Your task to perform on an android device: open chrome privacy settings Image 0: 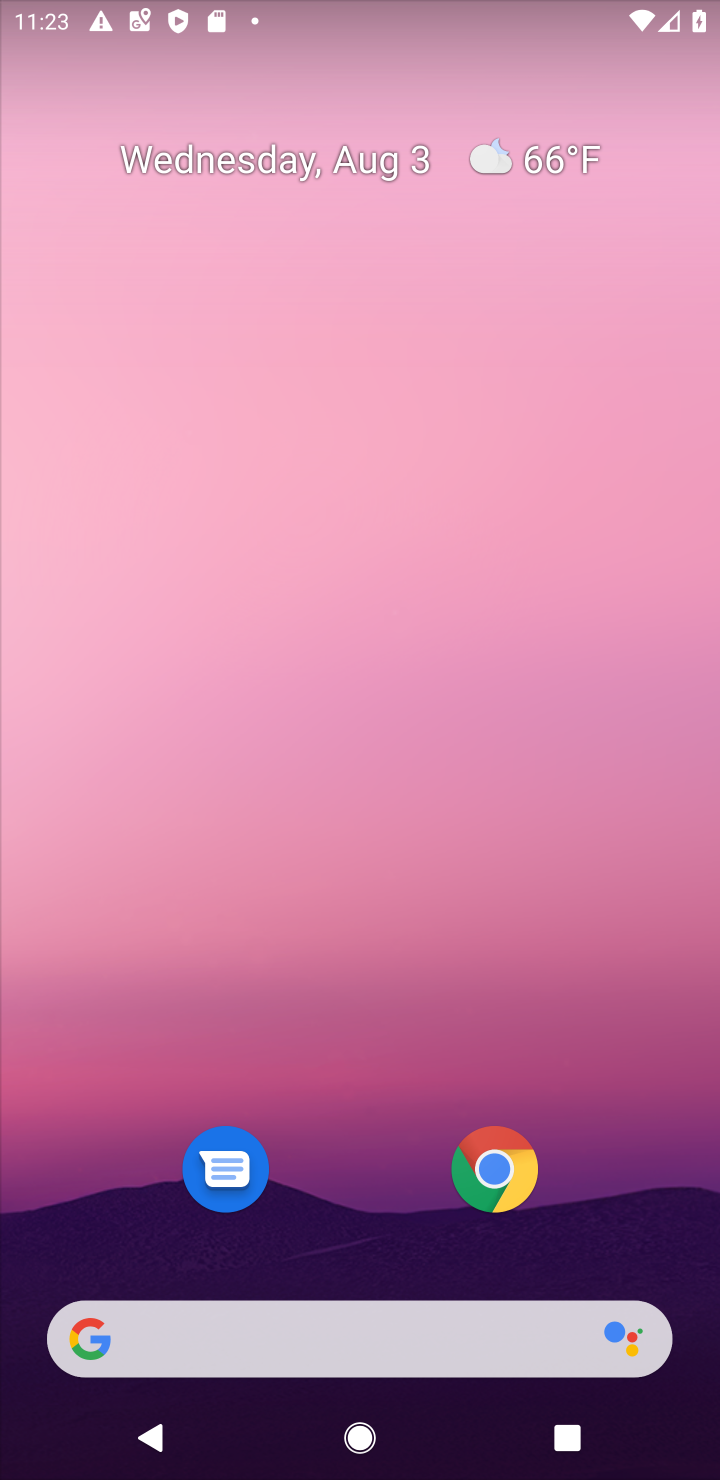
Step 0: click (501, 1171)
Your task to perform on an android device: open chrome privacy settings Image 1: 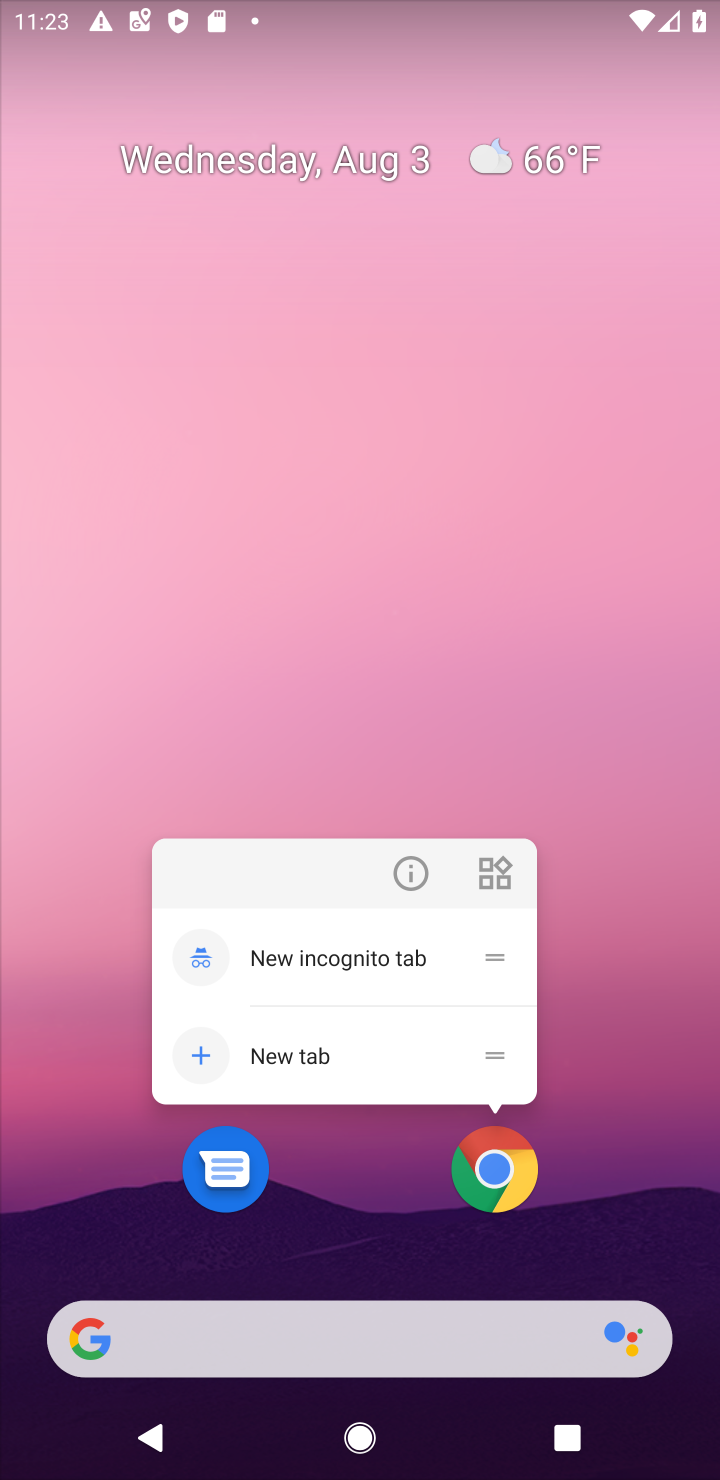
Step 1: click (501, 1171)
Your task to perform on an android device: open chrome privacy settings Image 2: 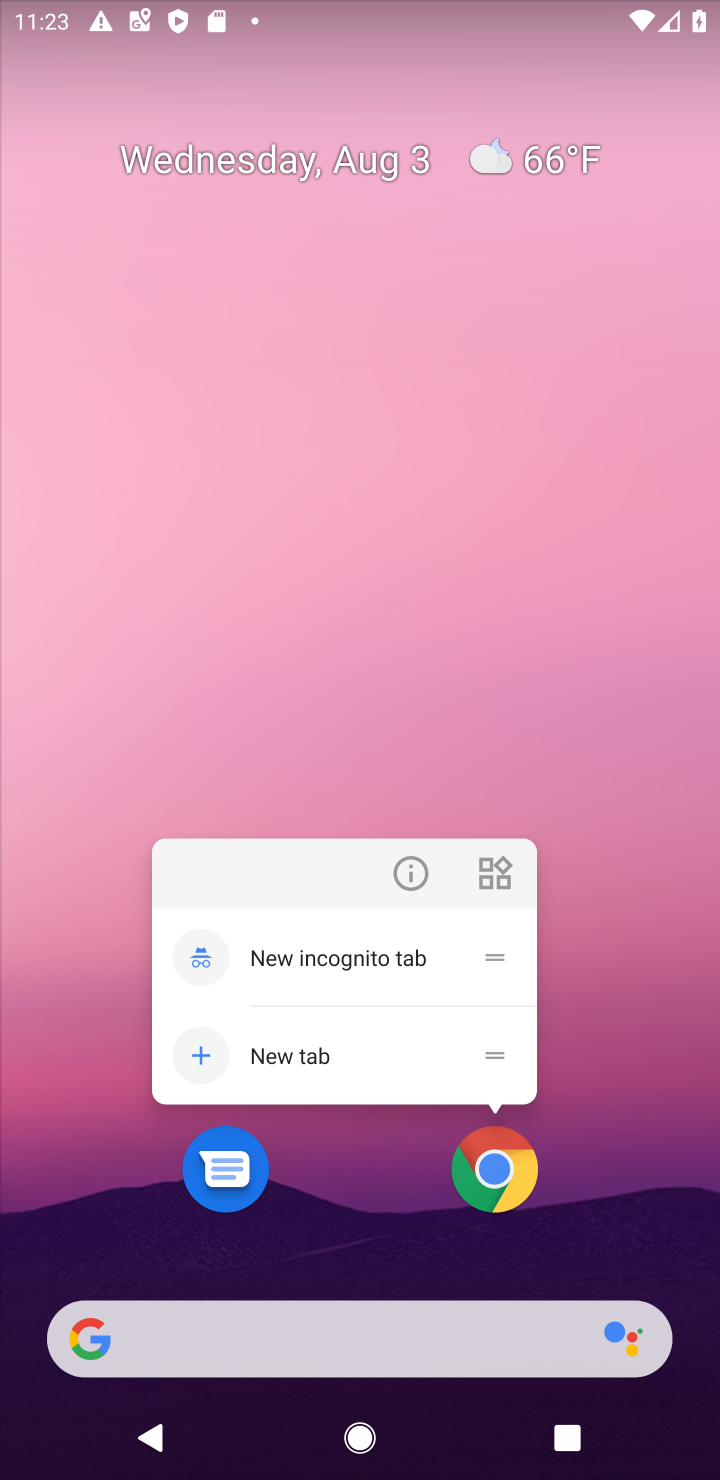
Step 2: click (501, 1171)
Your task to perform on an android device: open chrome privacy settings Image 3: 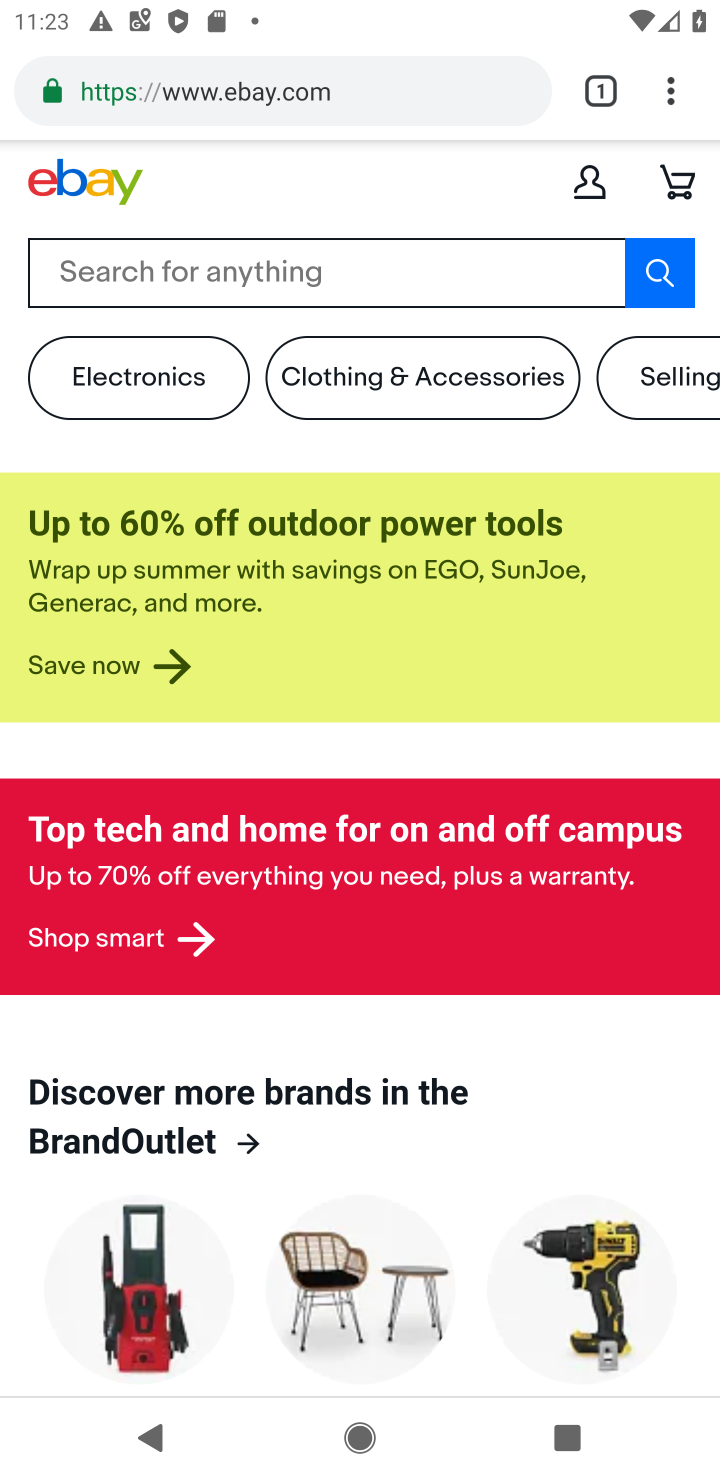
Step 3: drag from (664, 86) to (357, 1115)
Your task to perform on an android device: open chrome privacy settings Image 4: 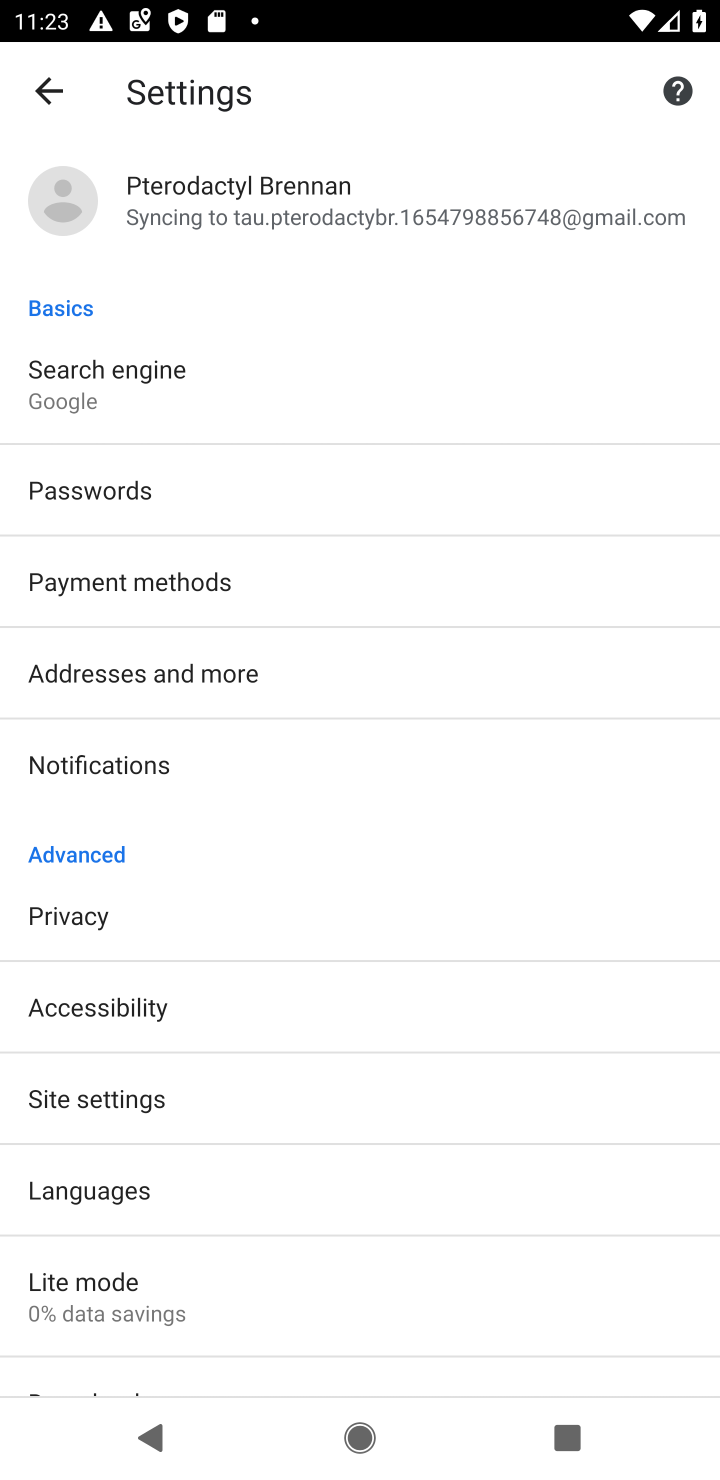
Step 4: click (69, 925)
Your task to perform on an android device: open chrome privacy settings Image 5: 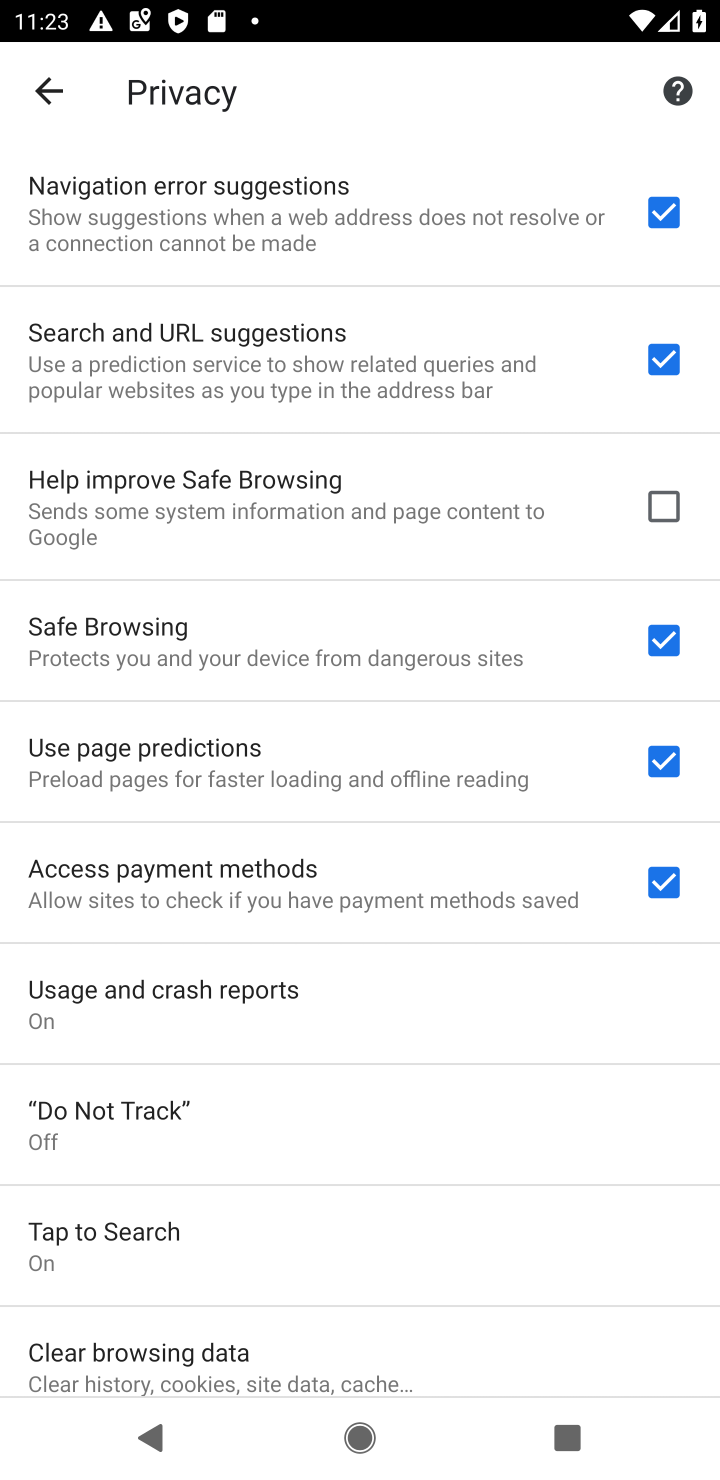
Step 5: task complete